Your task to perform on an android device: turn pop-ups on in chrome Image 0: 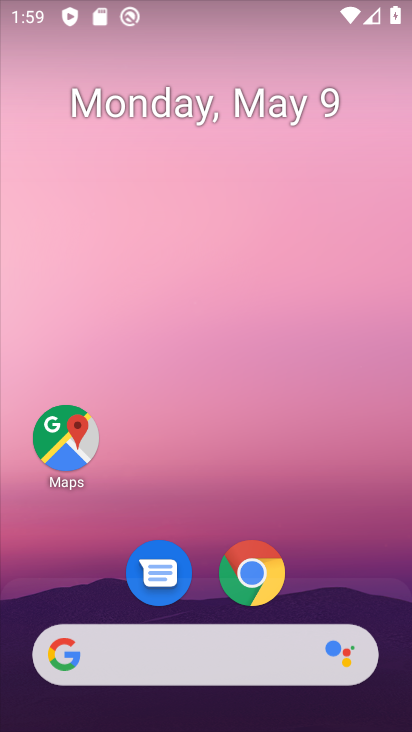
Step 0: drag from (282, 503) to (150, 18)
Your task to perform on an android device: turn pop-ups on in chrome Image 1: 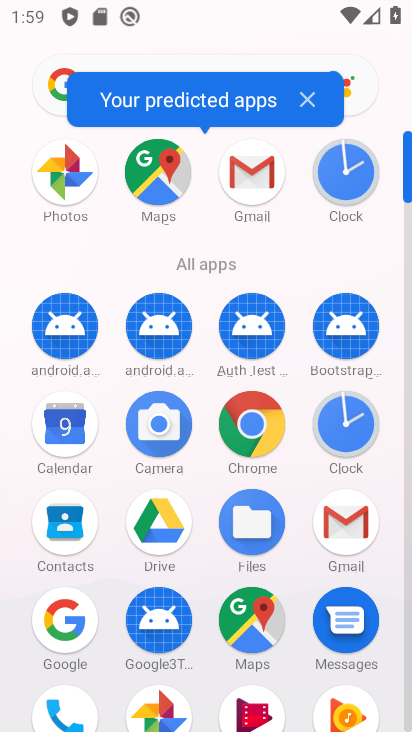
Step 1: click (250, 403)
Your task to perform on an android device: turn pop-ups on in chrome Image 2: 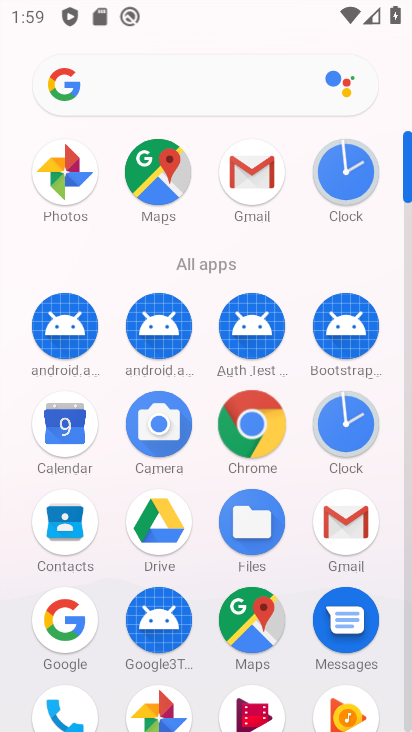
Step 2: click (250, 403)
Your task to perform on an android device: turn pop-ups on in chrome Image 3: 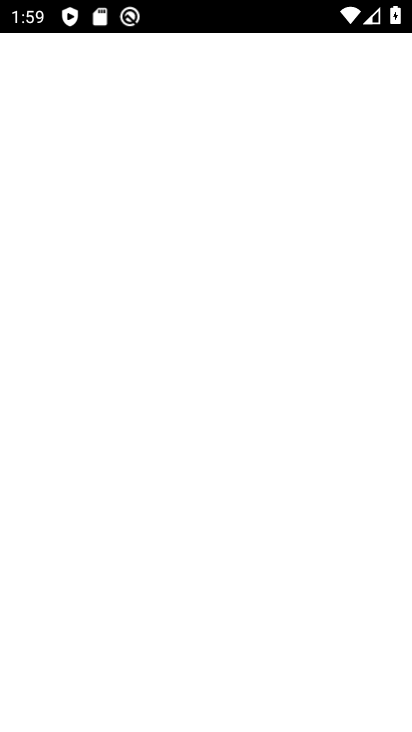
Step 3: click (250, 430)
Your task to perform on an android device: turn pop-ups on in chrome Image 4: 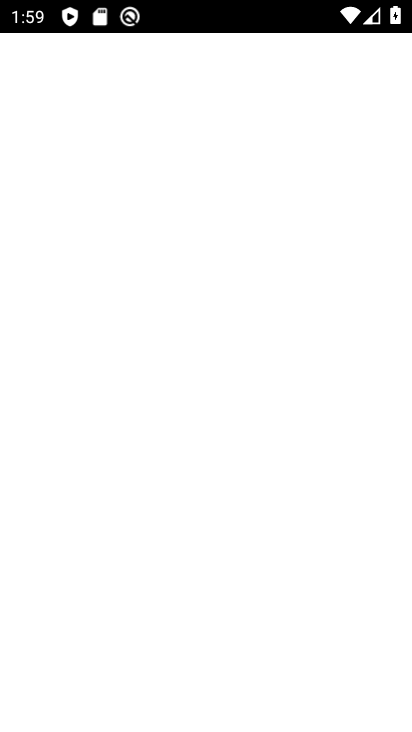
Step 4: click (248, 428)
Your task to perform on an android device: turn pop-ups on in chrome Image 5: 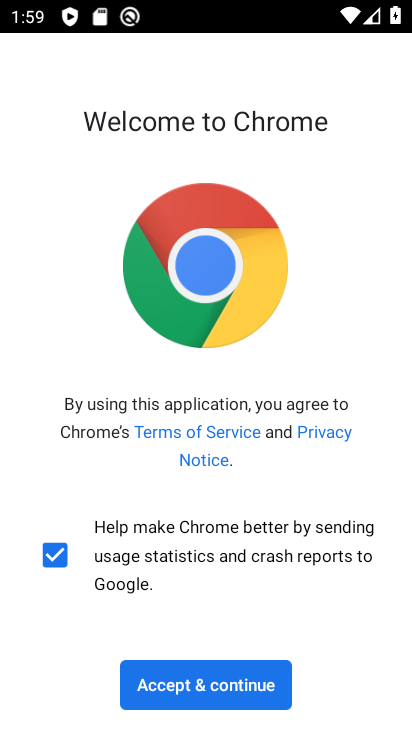
Step 5: click (220, 679)
Your task to perform on an android device: turn pop-ups on in chrome Image 6: 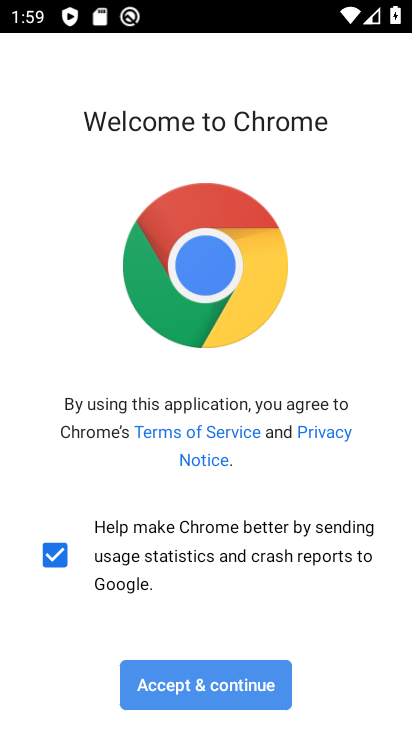
Step 6: click (220, 679)
Your task to perform on an android device: turn pop-ups on in chrome Image 7: 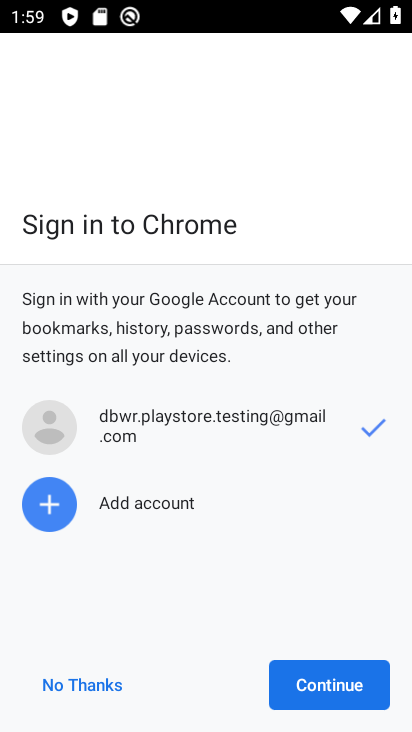
Step 7: click (220, 679)
Your task to perform on an android device: turn pop-ups on in chrome Image 8: 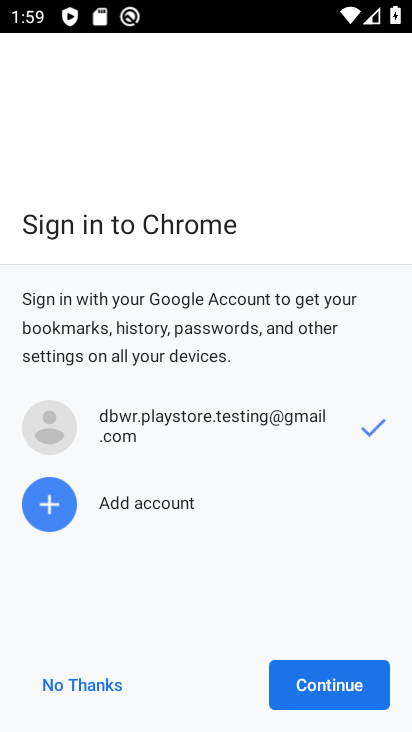
Step 8: click (328, 700)
Your task to perform on an android device: turn pop-ups on in chrome Image 9: 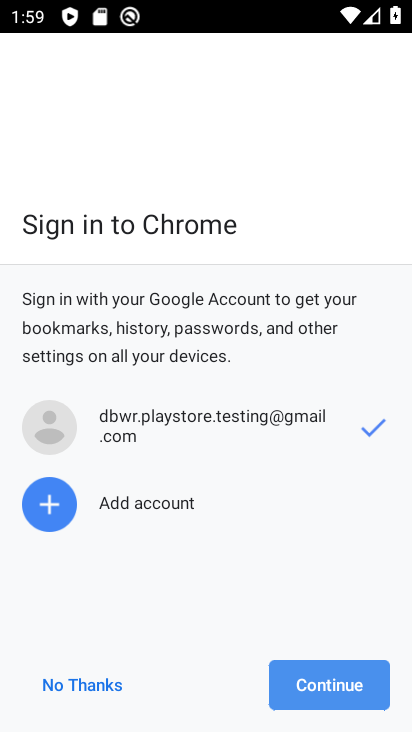
Step 9: click (337, 686)
Your task to perform on an android device: turn pop-ups on in chrome Image 10: 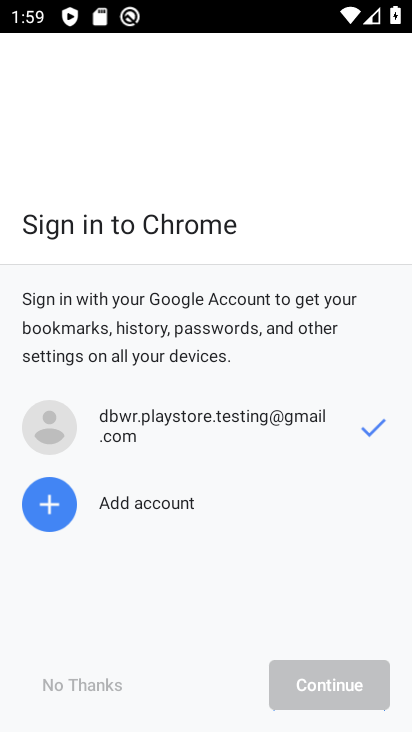
Step 10: click (338, 686)
Your task to perform on an android device: turn pop-ups on in chrome Image 11: 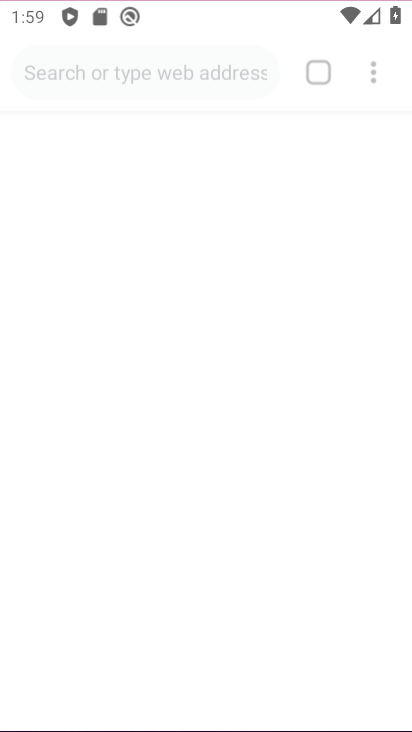
Step 11: click (335, 679)
Your task to perform on an android device: turn pop-ups on in chrome Image 12: 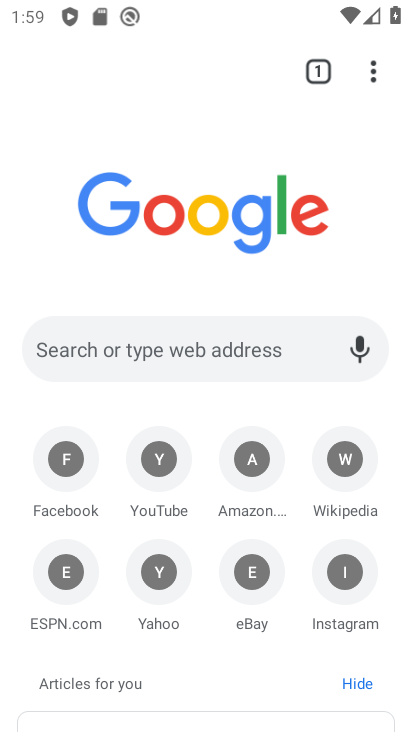
Step 12: drag from (370, 66) to (284, 542)
Your task to perform on an android device: turn pop-ups on in chrome Image 13: 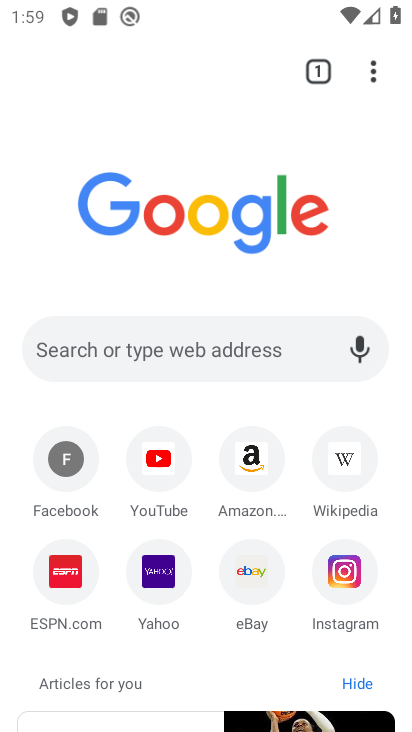
Step 13: drag from (372, 73) to (100, 602)
Your task to perform on an android device: turn pop-ups on in chrome Image 14: 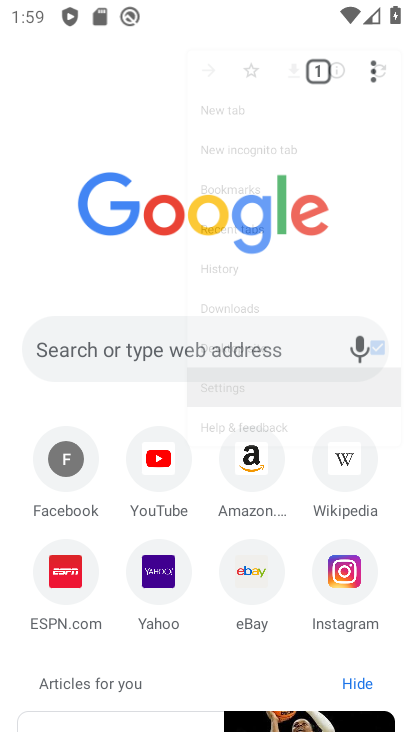
Step 14: click (101, 603)
Your task to perform on an android device: turn pop-ups on in chrome Image 15: 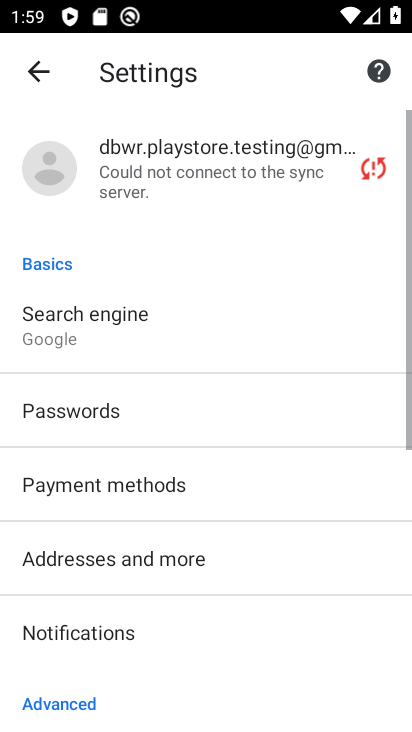
Step 15: drag from (142, 564) to (109, 69)
Your task to perform on an android device: turn pop-ups on in chrome Image 16: 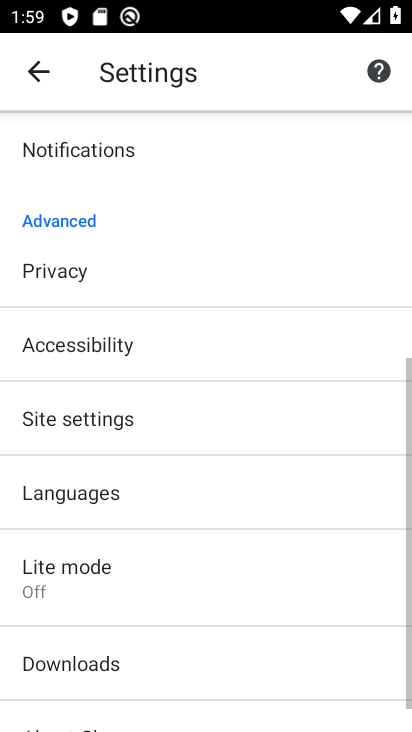
Step 16: click (161, 121)
Your task to perform on an android device: turn pop-ups on in chrome Image 17: 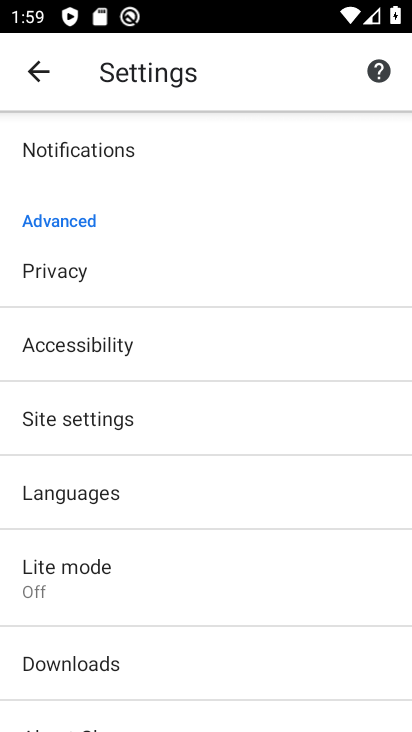
Step 17: drag from (161, 540) to (125, 67)
Your task to perform on an android device: turn pop-ups on in chrome Image 18: 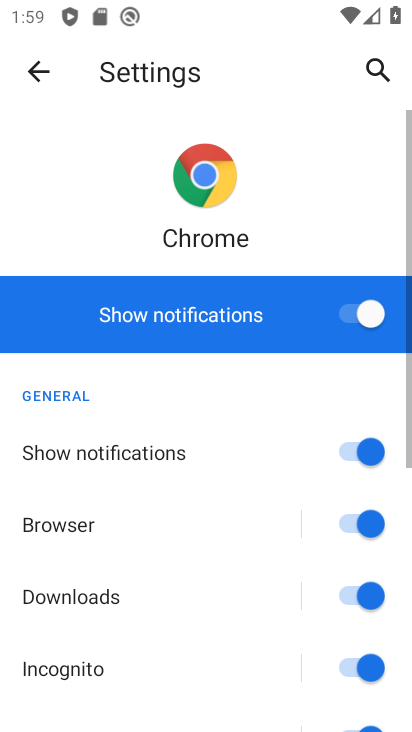
Step 18: click (39, 70)
Your task to perform on an android device: turn pop-ups on in chrome Image 19: 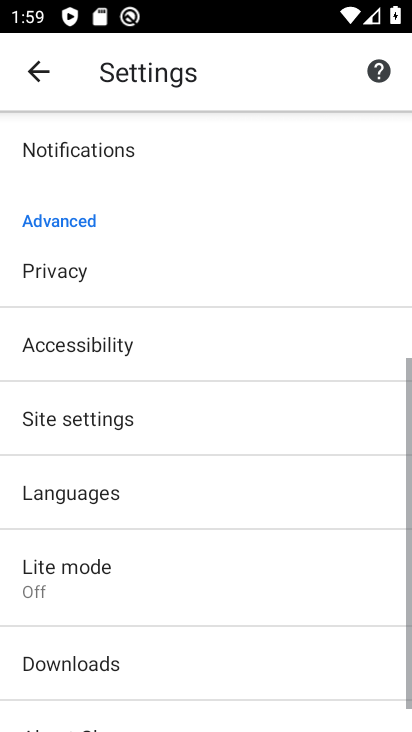
Step 19: click (84, 413)
Your task to perform on an android device: turn pop-ups on in chrome Image 20: 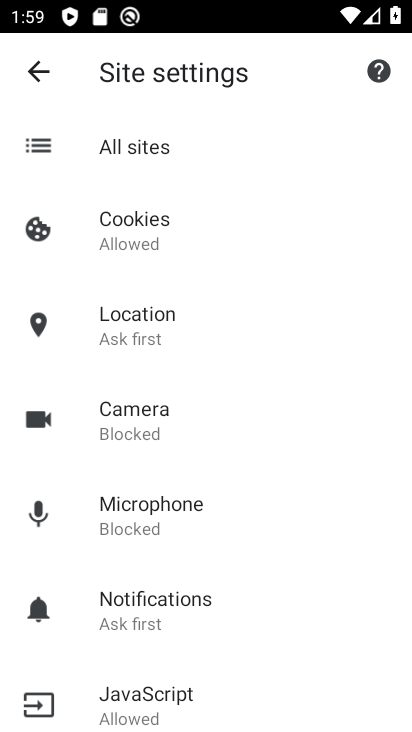
Step 20: drag from (152, 671) to (92, 122)
Your task to perform on an android device: turn pop-ups on in chrome Image 21: 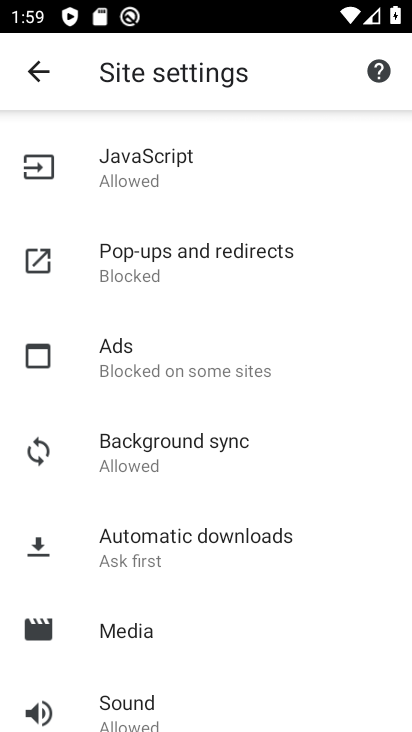
Step 21: click (120, 263)
Your task to perform on an android device: turn pop-ups on in chrome Image 22: 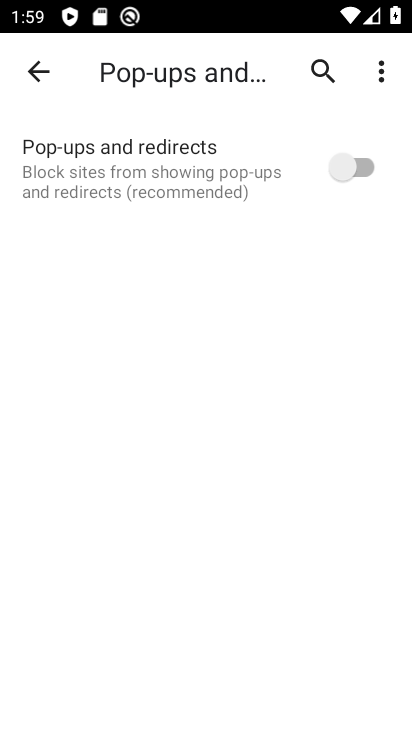
Step 22: click (349, 164)
Your task to perform on an android device: turn pop-ups on in chrome Image 23: 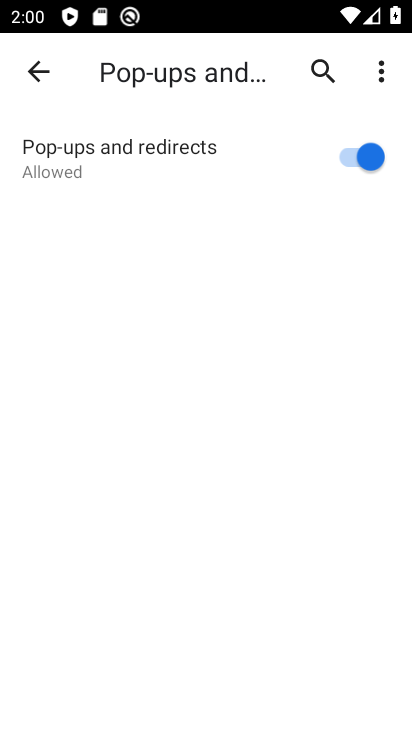
Step 23: task complete